Your task to perform on an android device: turn on the 24-hour format for clock Image 0: 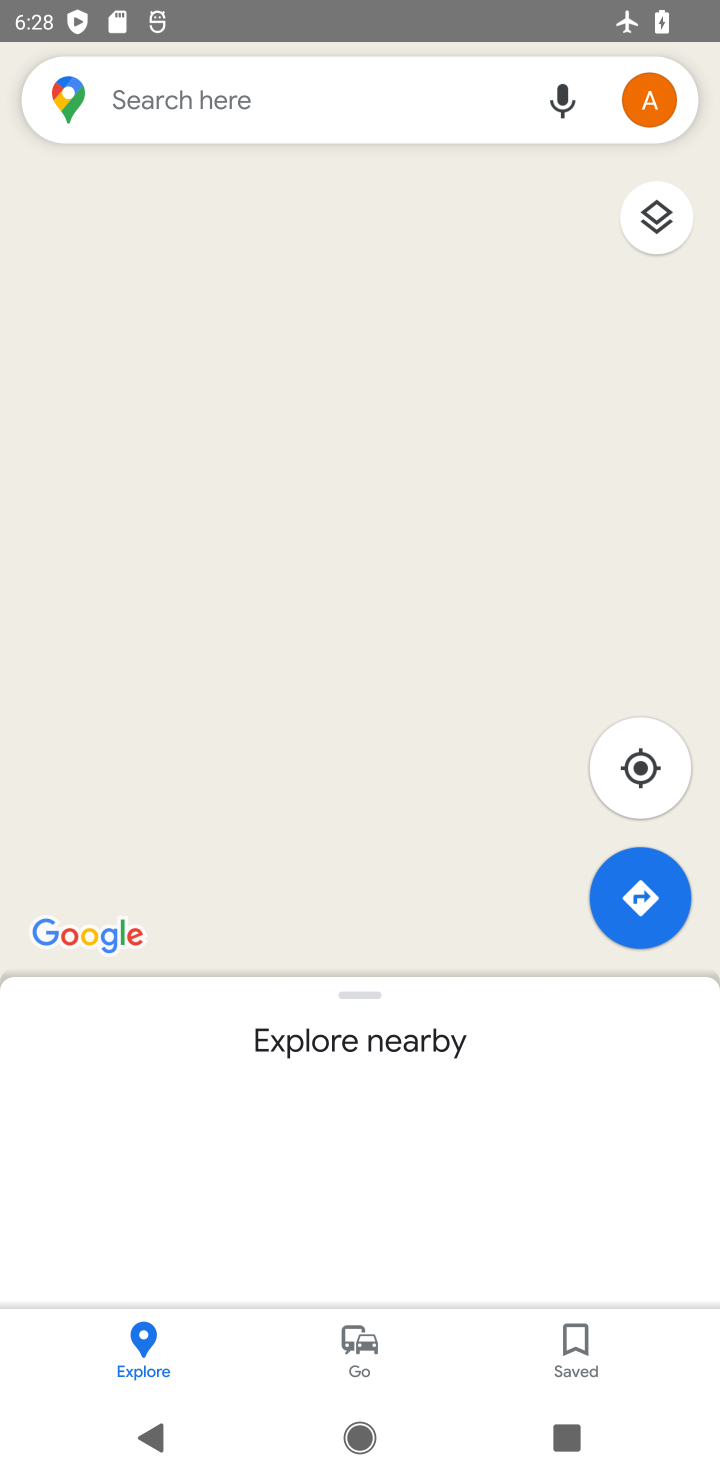
Step 0: press home button
Your task to perform on an android device: turn on the 24-hour format for clock Image 1: 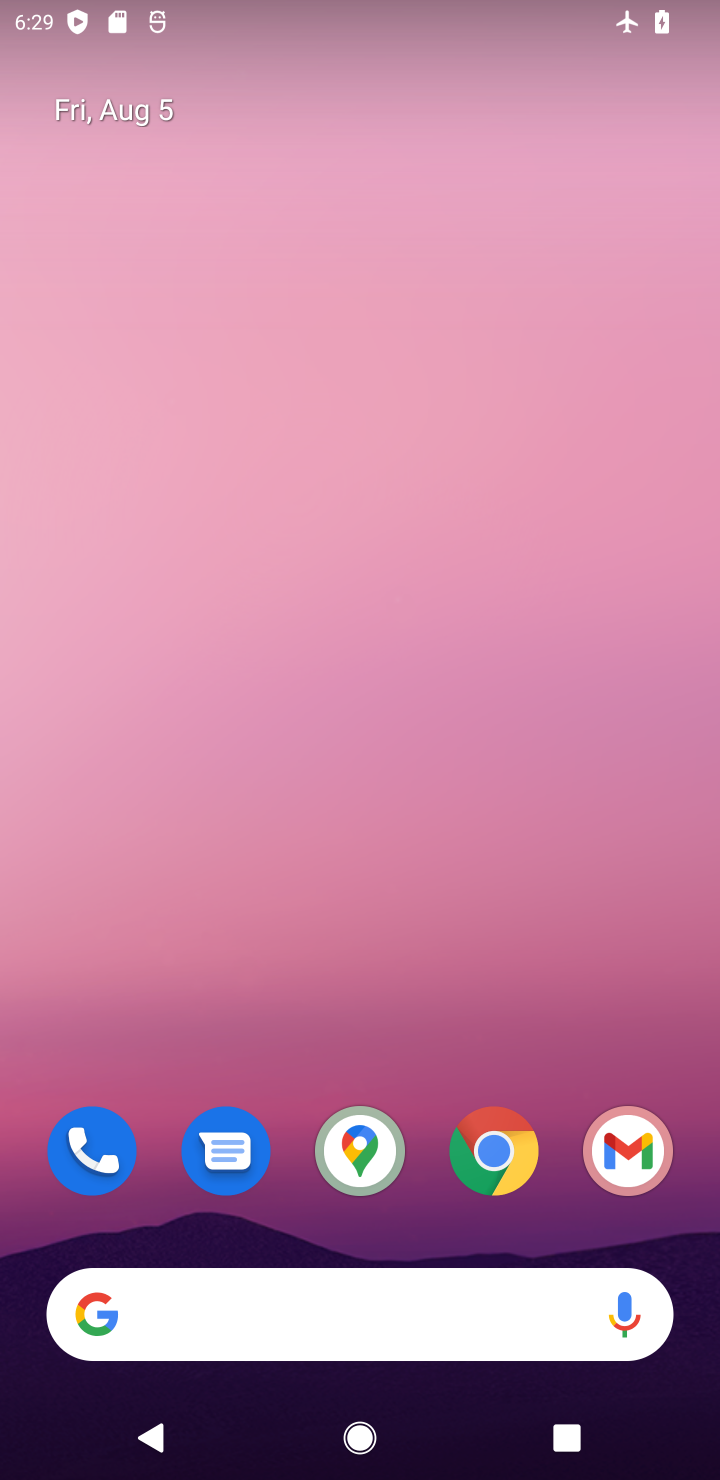
Step 1: drag from (407, 1235) to (324, 155)
Your task to perform on an android device: turn on the 24-hour format for clock Image 2: 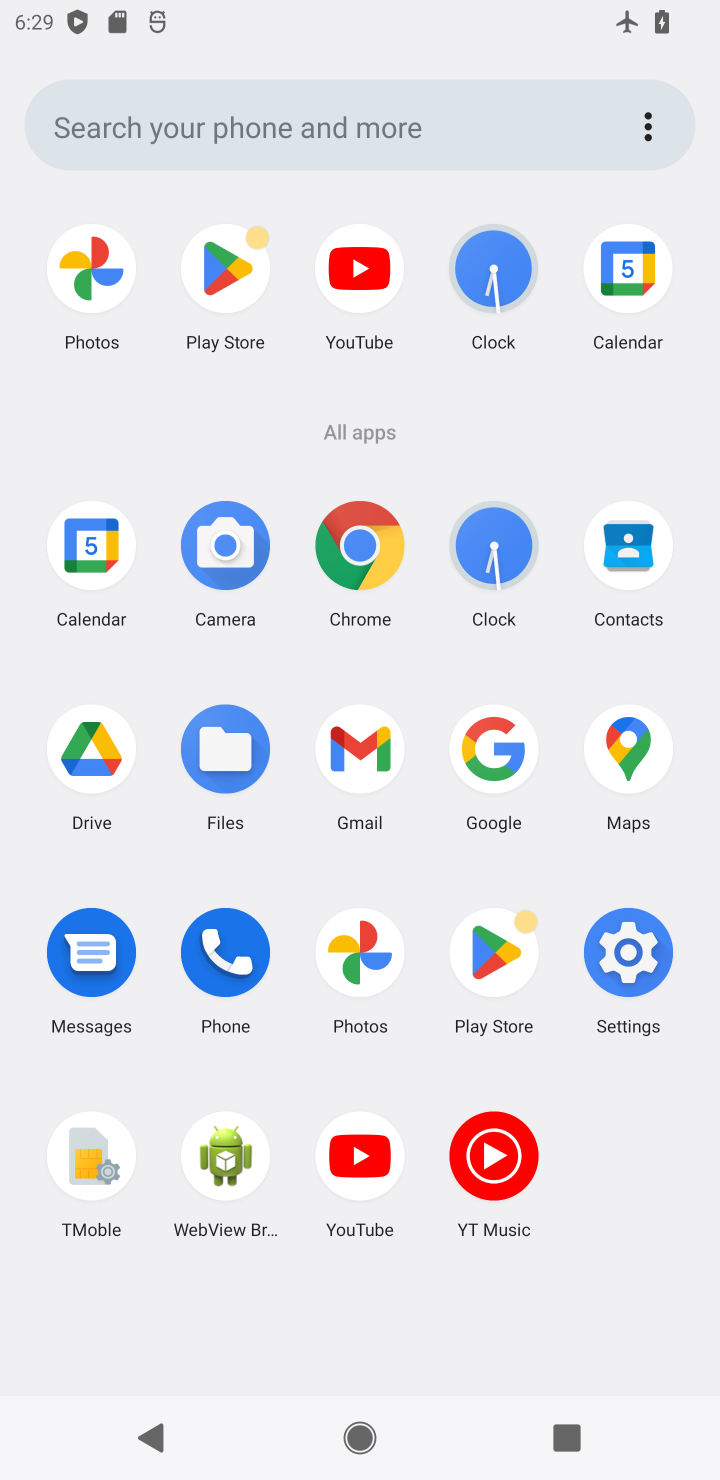
Step 2: click (493, 566)
Your task to perform on an android device: turn on the 24-hour format for clock Image 3: 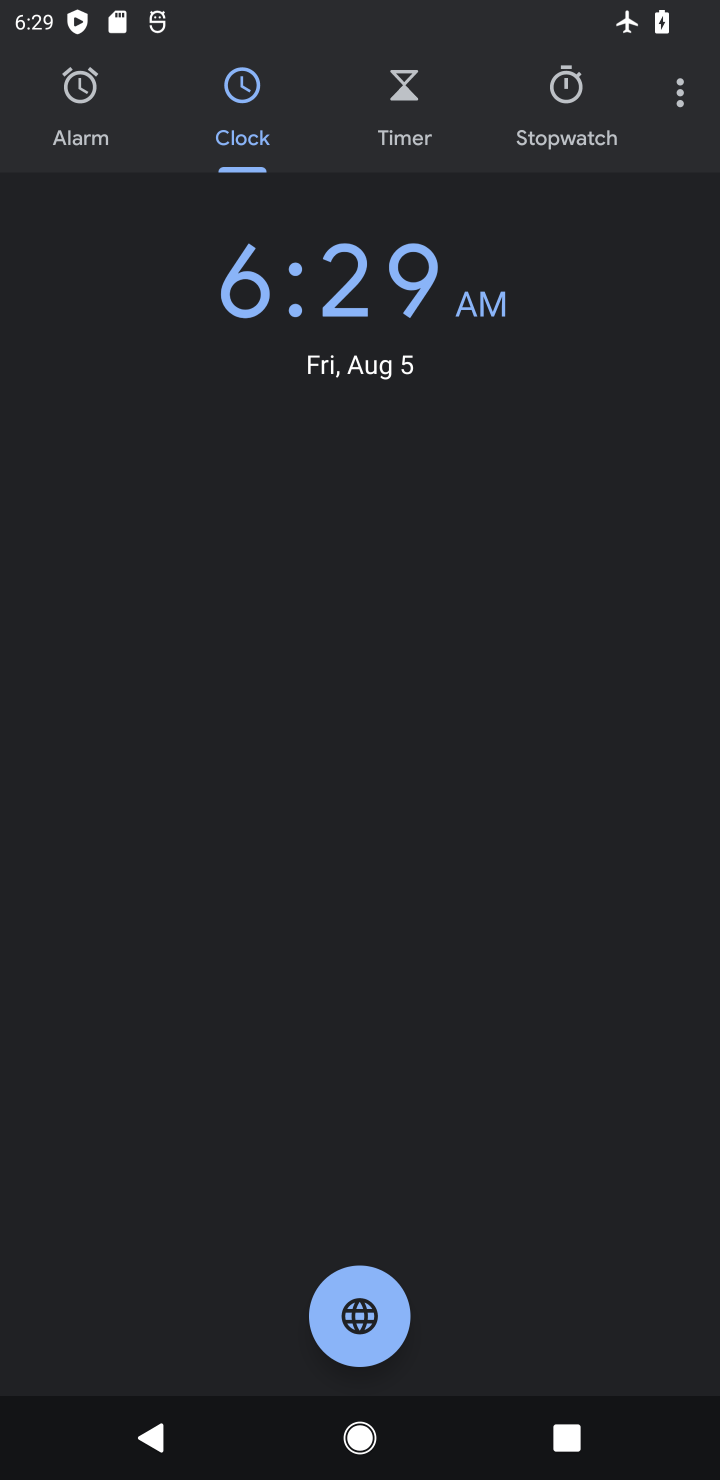
Step 3: click (676, 92)
Your task to perform on an android device: turn on the 24-hour format for clock Image 4: 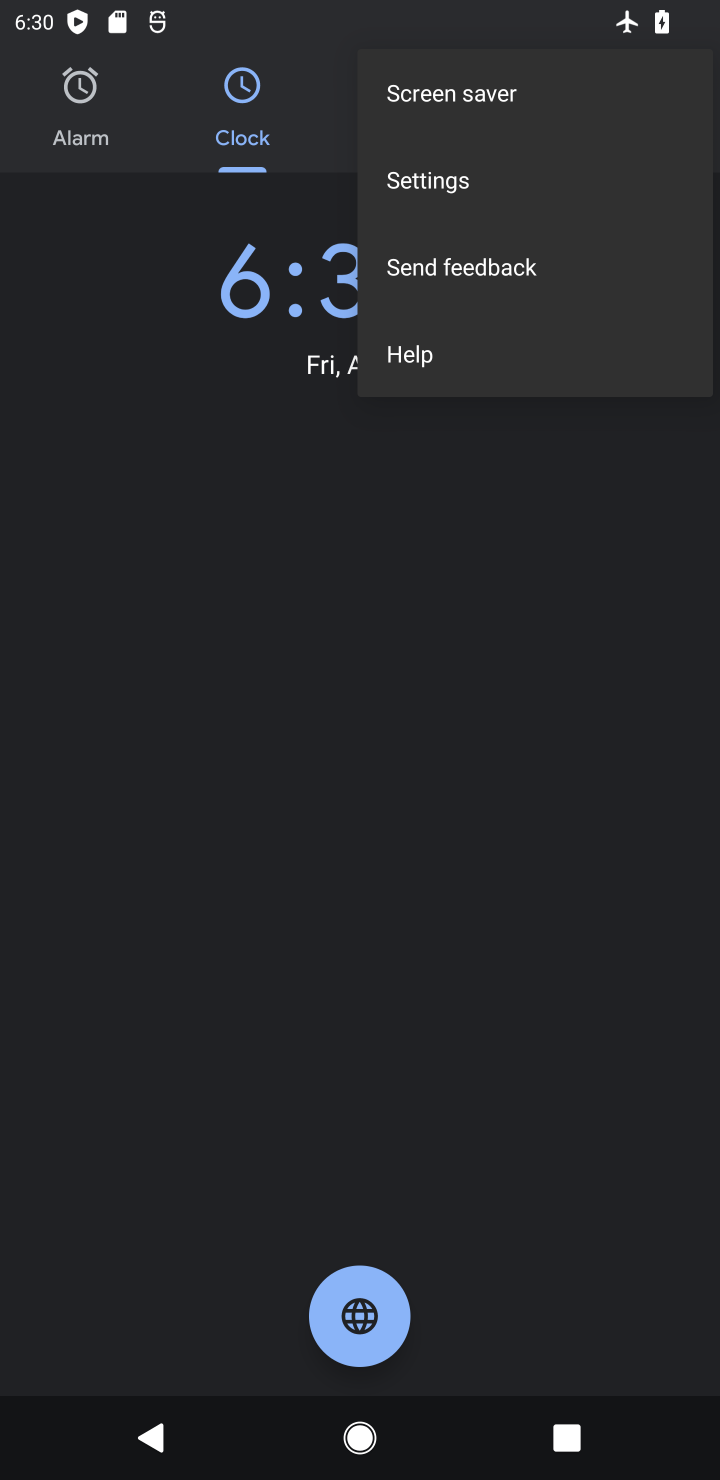
Step 4: click (416, 173)
Your task to perform on an android device: turn on the 24-hour format for clock Image 5: 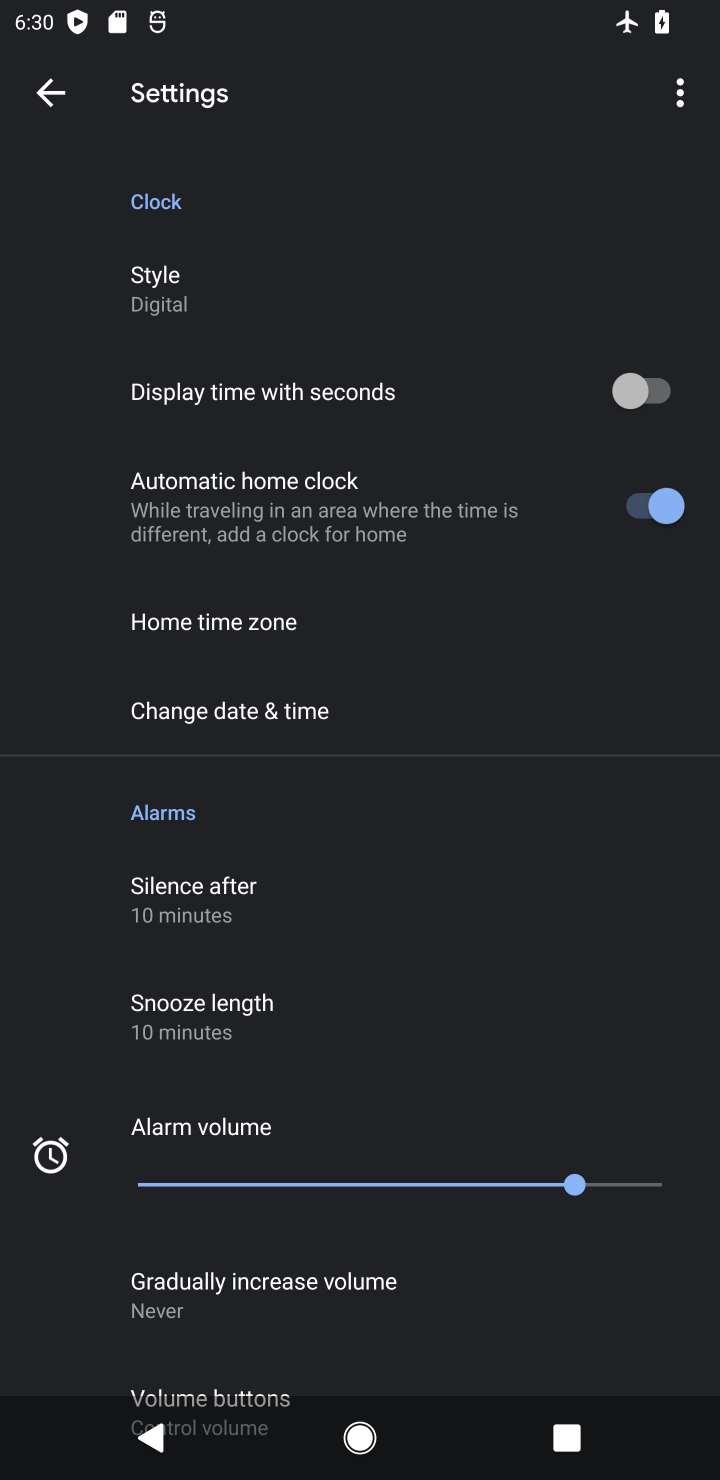
Step 5: click (276, 734)
Your task to perform on an android device: turn on the 24-hour format for clock Image 6: 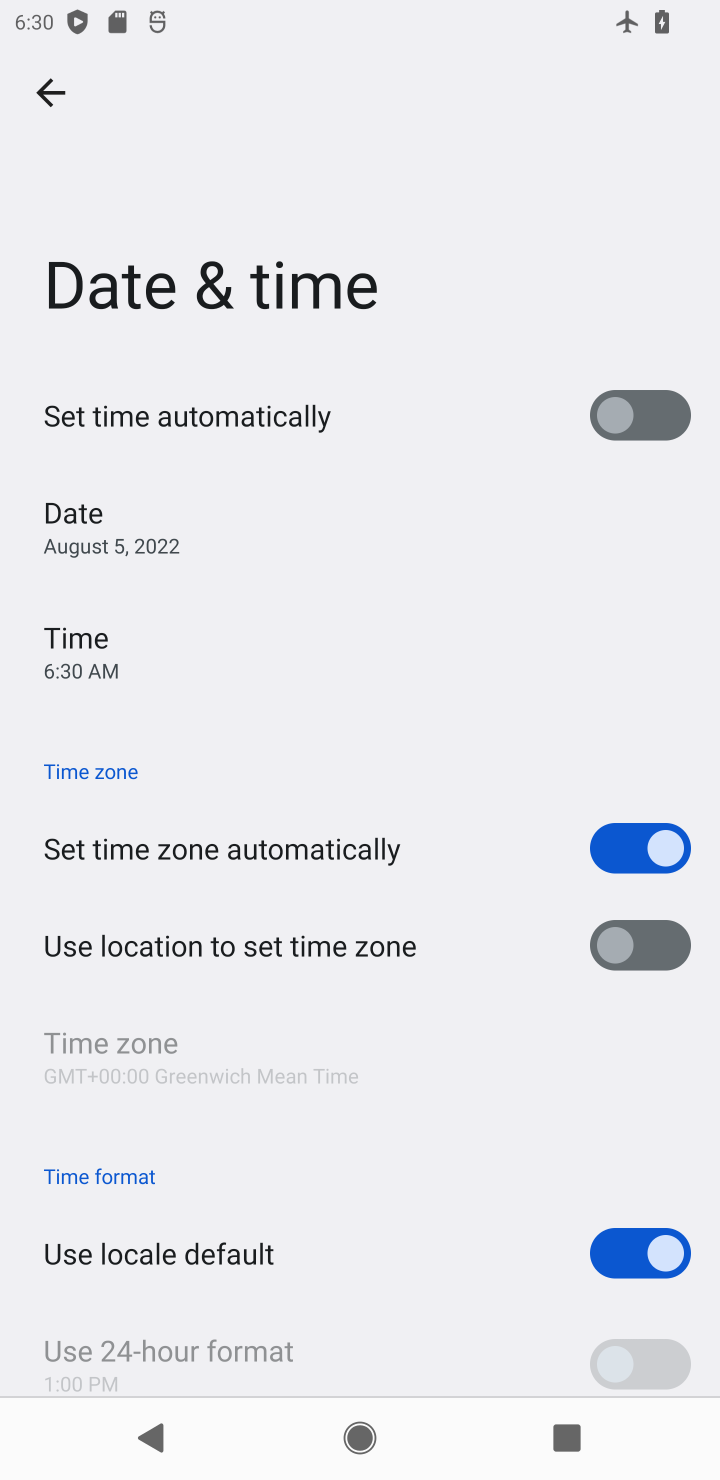
Step 6: drag from (372, 1126) to (386, 36)
Your task to perform on an android device: turn on the 24-hour format for clock Image 7: 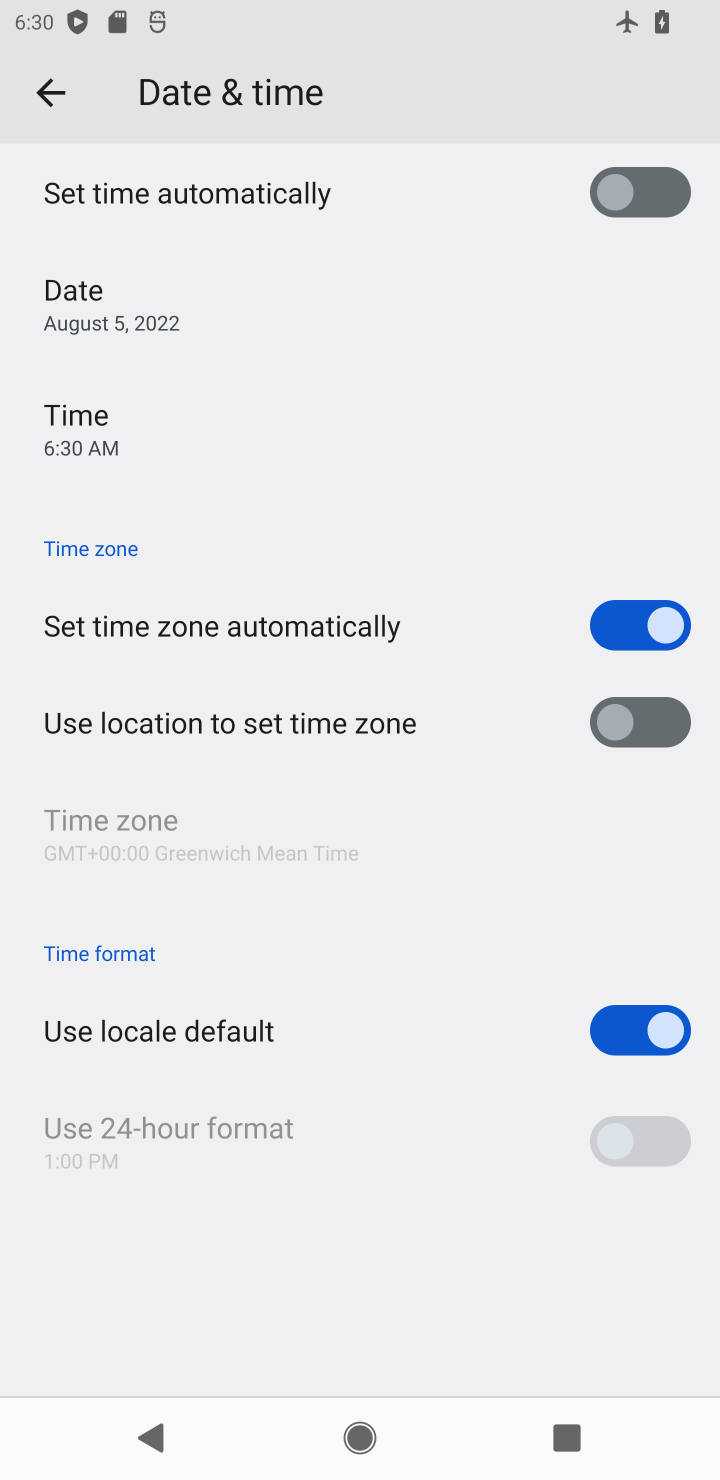
Step 7: click (655, 1049)
Your task to perform on an android device: turn on the 24-hour format for clock Image 8: 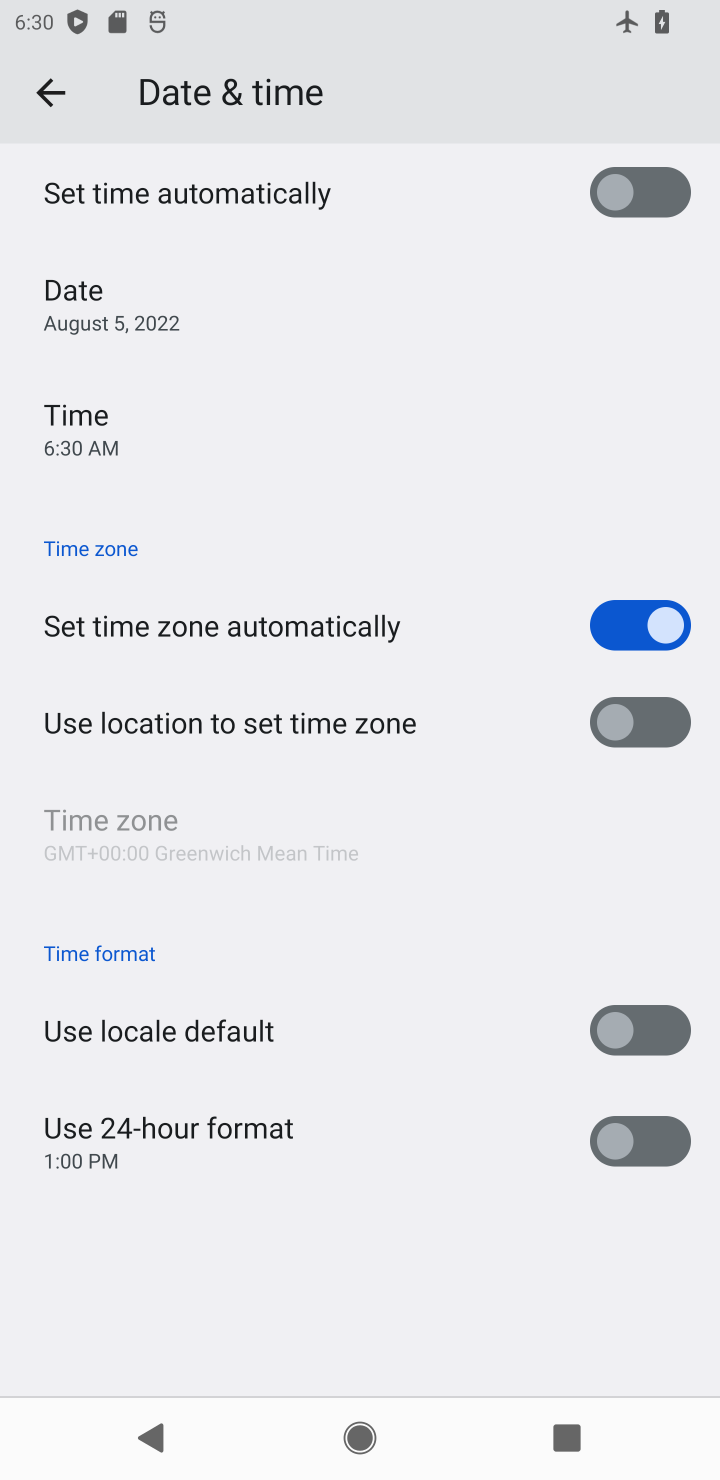
Step 8: click (632, 1137)
Your task to perform on an android device: turn on the 24-hour format for clock Image 9: 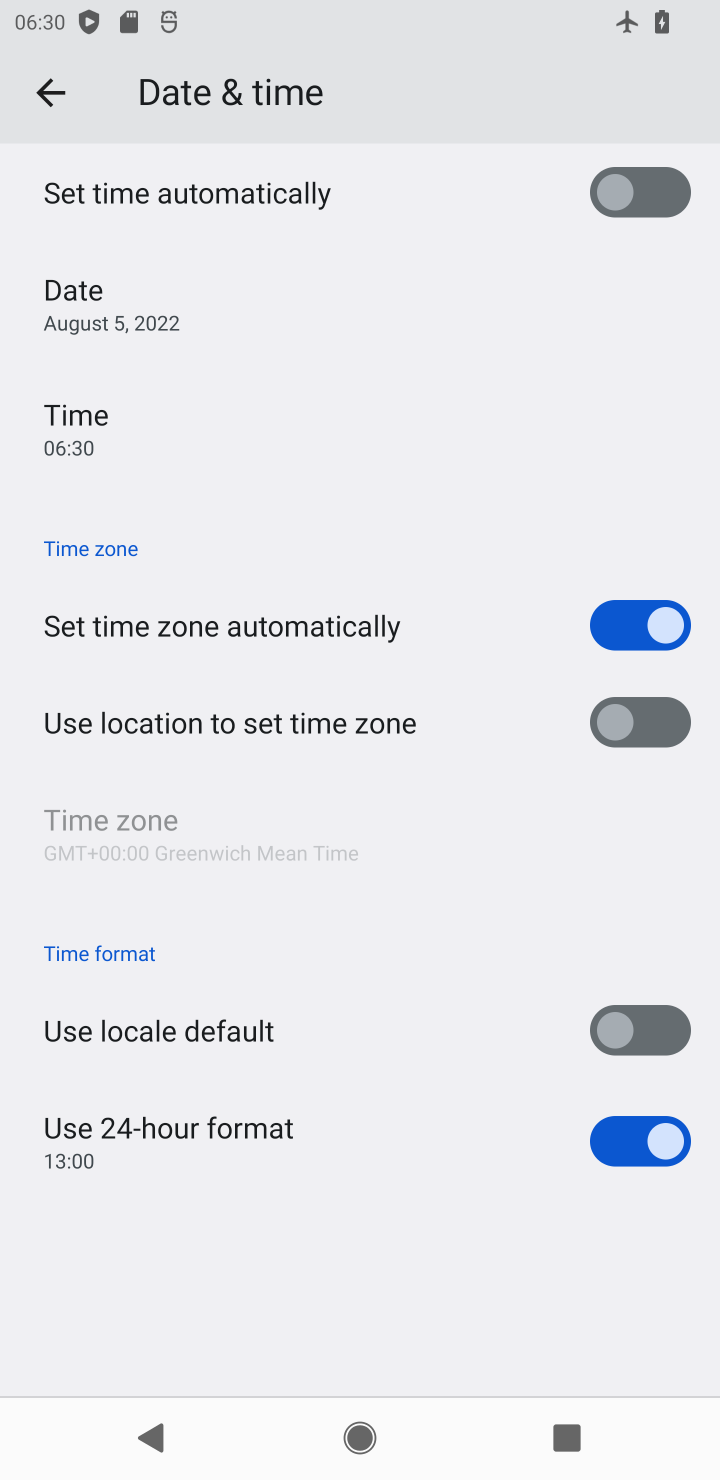
Step 9: task complete